Your task to perform on an android device: Open Google Maps and go to "Timeline" Image 0: 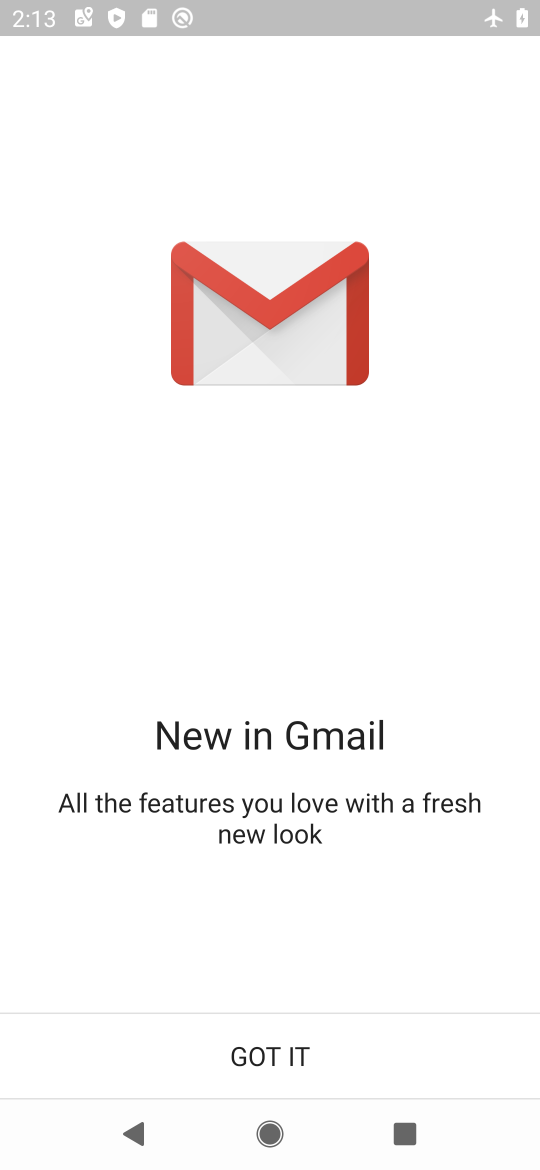
Step 0: press home button
Your task to perform on an android device: Open Google Maps and go to "Timeline" Image 1: 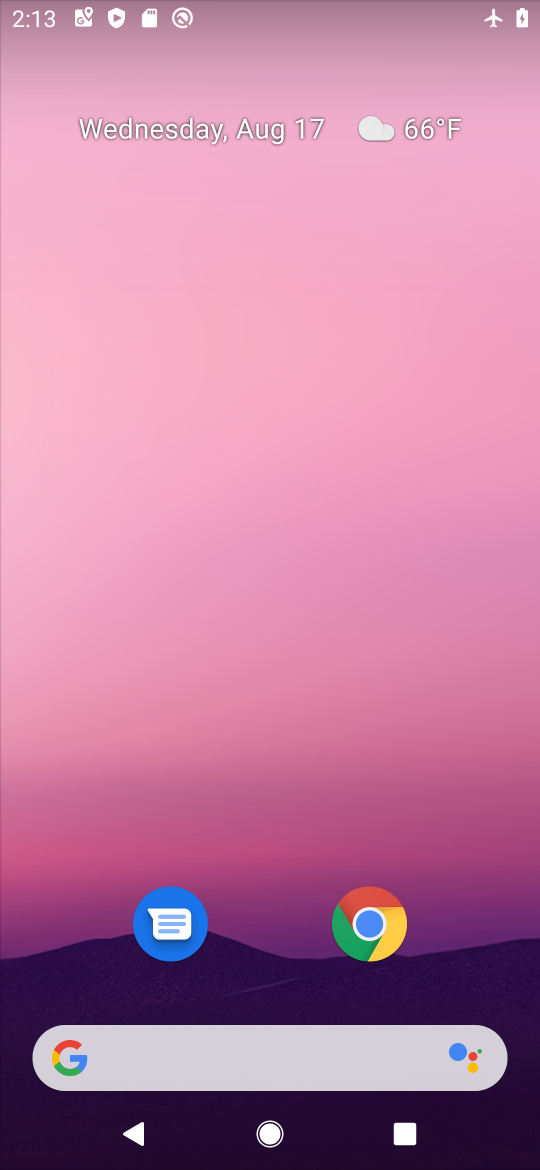
Step 1: drag from (204, 1062) to (290, 159)
Your task to perform on an android device: Open Google Maps and go to "Timeline" Image 2: 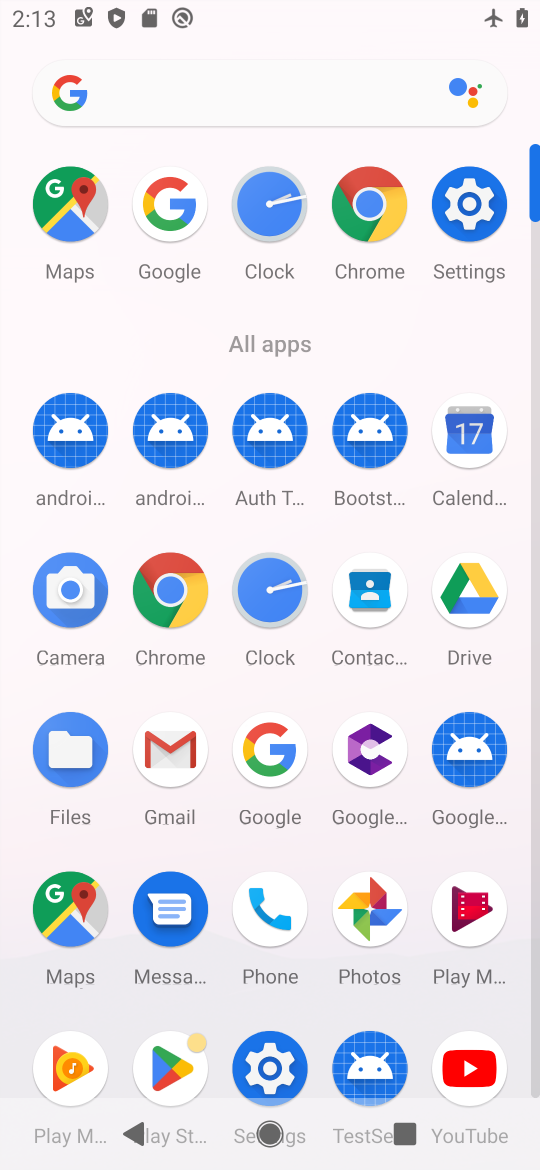
Step 2: click (76, 209)
Your task to perform on an android device: Open Google Maps and go to "Timeline" Image 3: 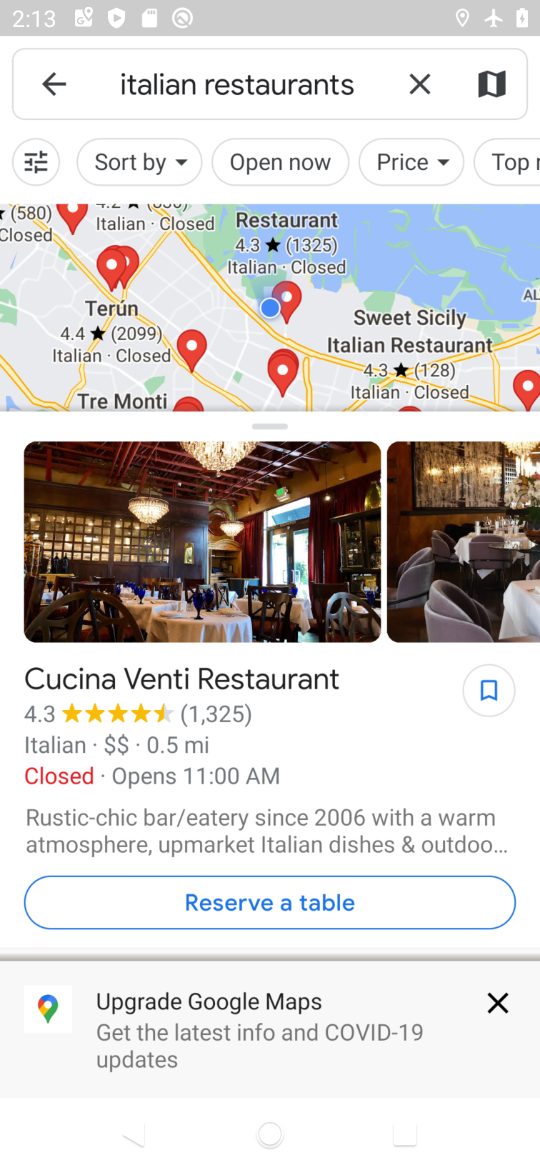
Step 3: press back button
Your task to perform on an android device: Open Google Maps and go to "Timeline" Image 4: 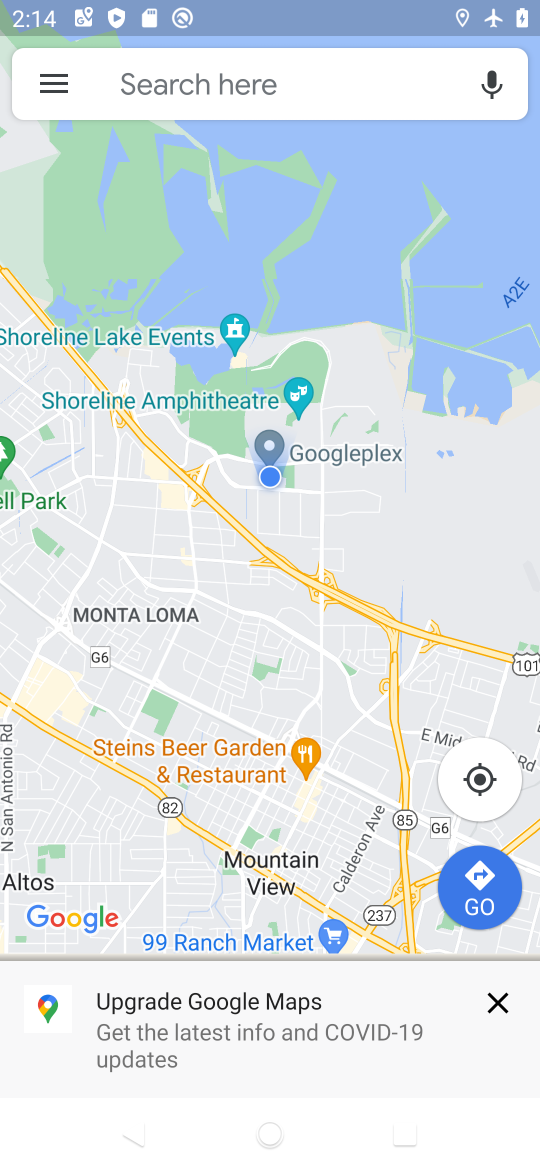
Step 4: click (54, 90)
Your task to perform on an android device: Open Google Maps and go to "Timeline" Image 5: 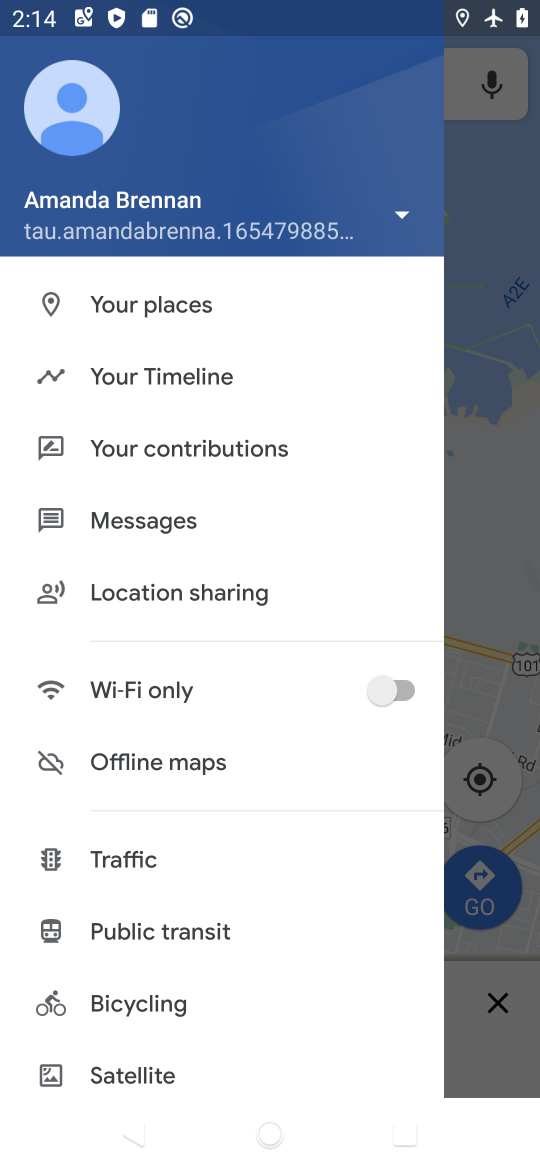
Step 5: click (174, 395)
Your task to perform on an android device: Open Google Maps and go to "Timeline" Image 6: 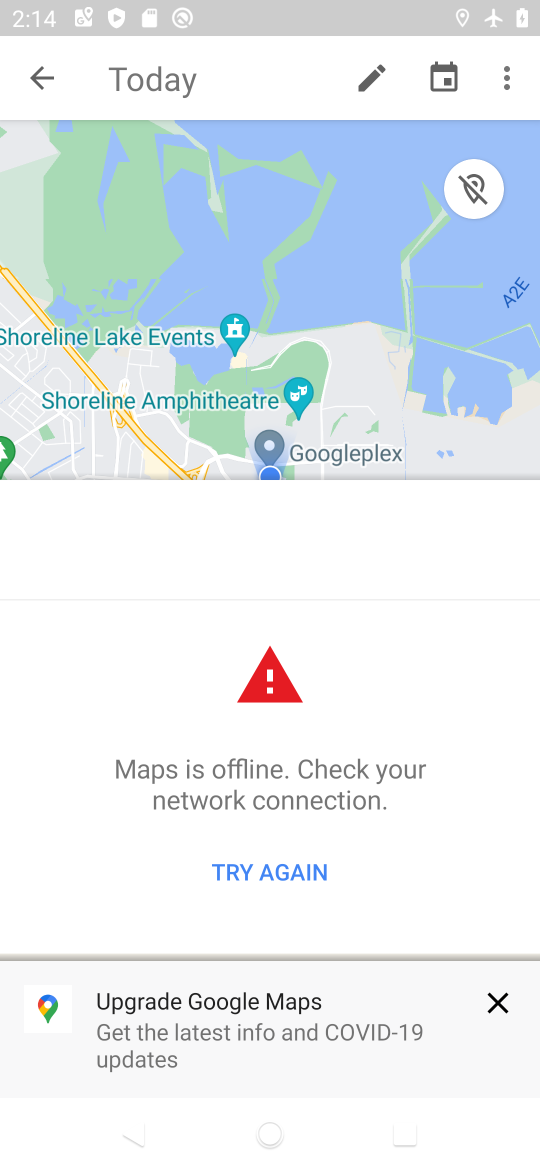
Step 6: task complete